Your task to perform on an android device: Do I have any events tomorrow? Image 0: 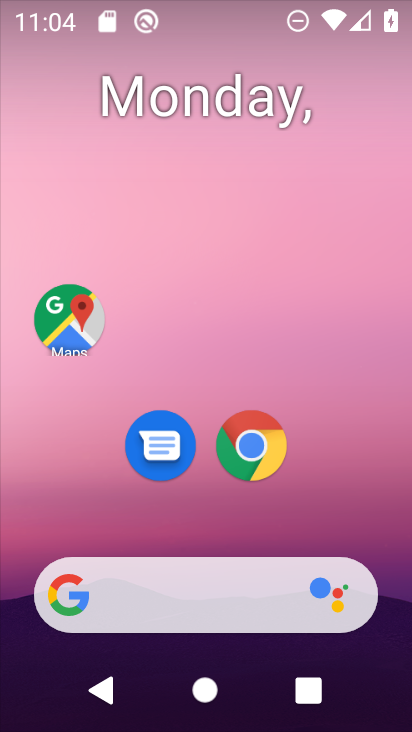
Step 0: drag from (240, 523) to (298, 105)
Your task to perform on an android device: Do I have any events tomorrow? Image 1: 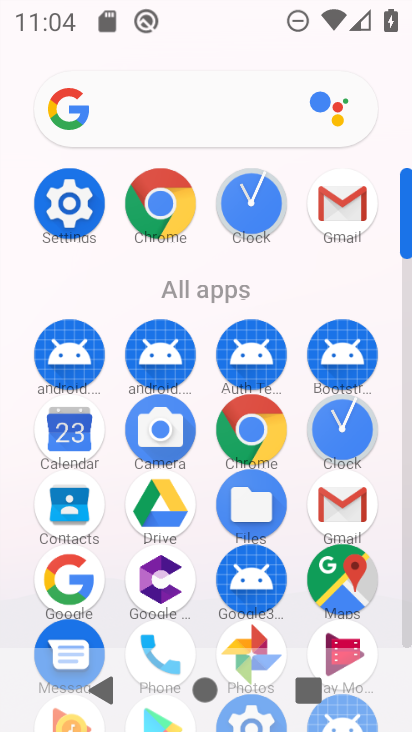
Step 1: click (82, 436)
Your task to perform on an android device: Do I have any events tomorrow? Image 2: 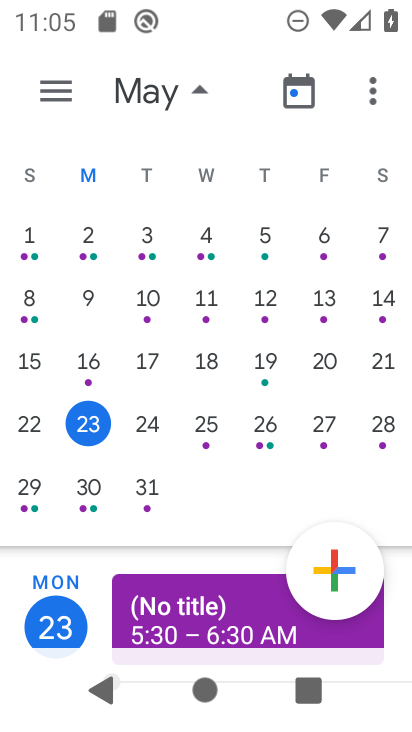
Step 2: click (166, 424)
Your task to perform on an android device: Do I have any events tomorrow? Image 3: 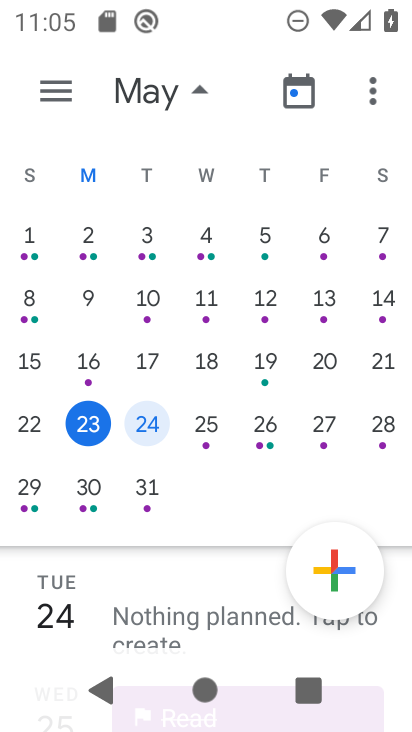
Step 3: click (190, 421)
Your task to perform on an android device: Do I have any events tomorrow? Image 4: 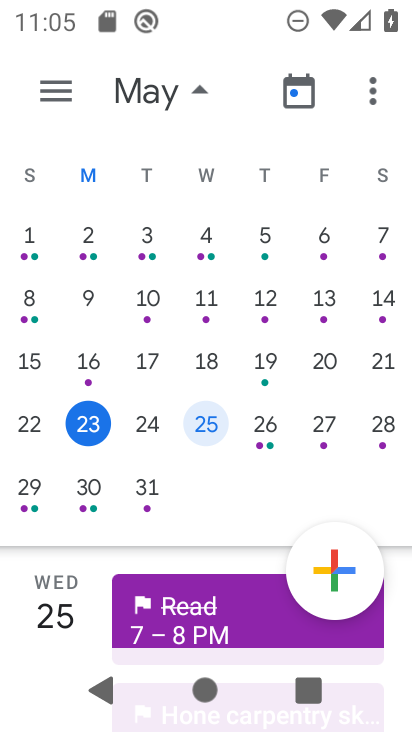
Step 4: task complete